Your task to perform on an android device: Open settings on Google Maps Image 0: 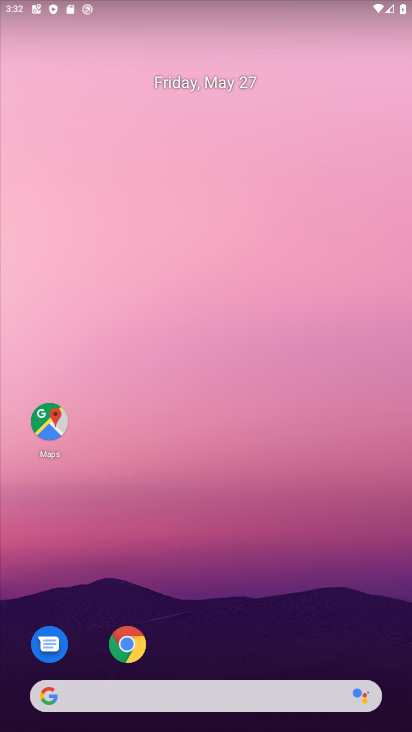
Step 0: click (53, 417)
Your task to perform on an android device: Open settings on Google Maps Image 1: 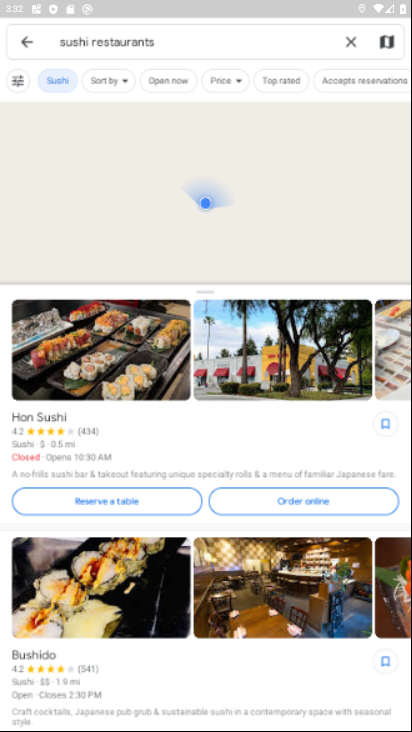
Step 1: click (30, 33)
Your task to perform on an android device: Open settings on Google Maps Image 2: 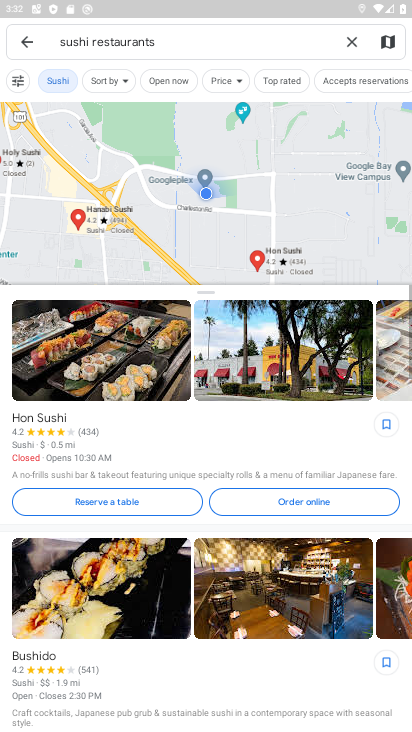
Step 2: click (28, 37)
Your task to perform on an android device: Open settings on Google Maps Image 3: 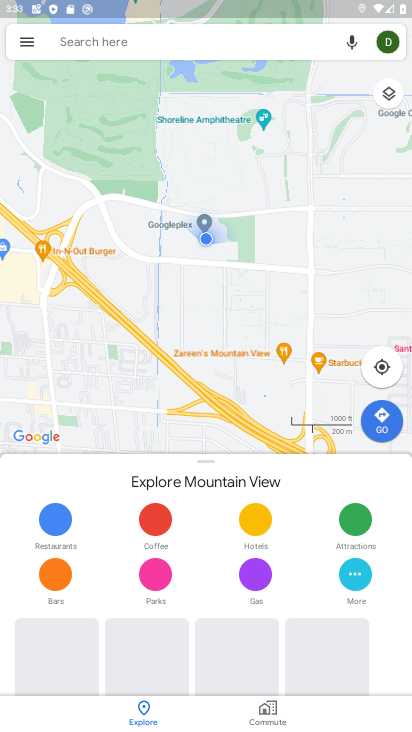
Step 3: click (29, 41)
Your task to perform on an android device: Open settings on Google Maps Image 4: 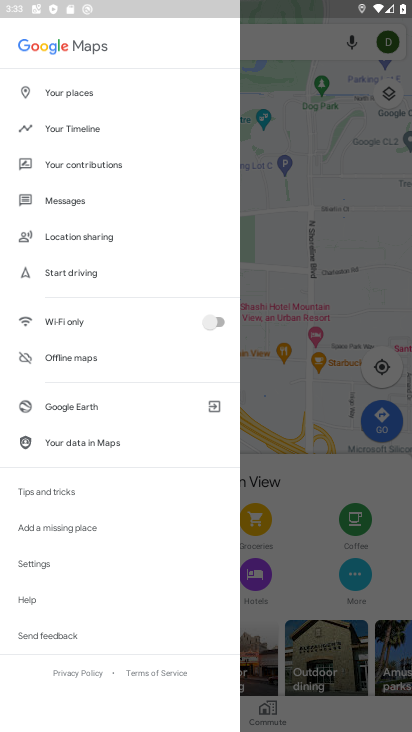
Step 4: click (65, 566)
Your task to perform on an android device: Open settings on Google Maps Image 5: 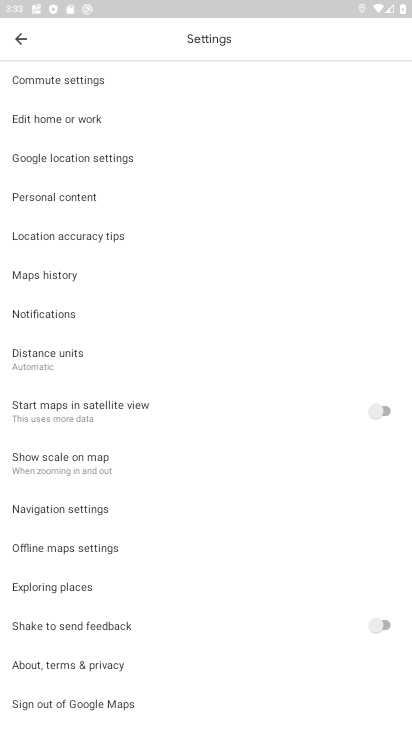
Step 5: task complete